Your task to perform on an android device: Find coffee shops on Maps Image 0: 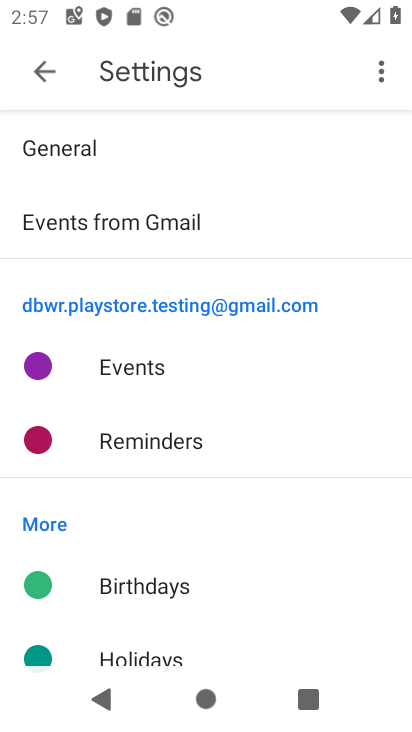
Step 0: press home button
Your task to perform on an android device: Find coffee shops on Maps Image 1: 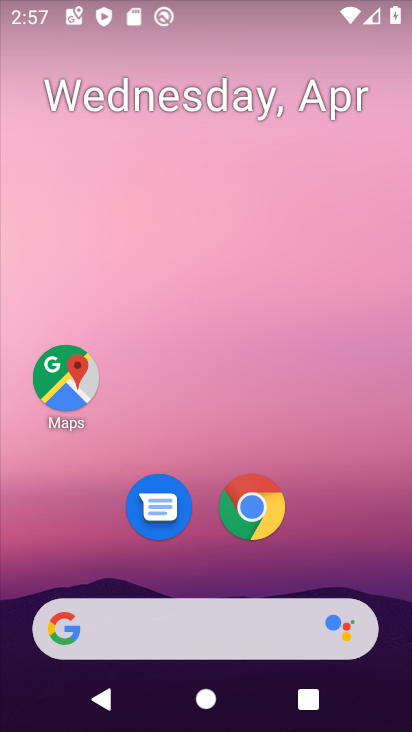
Step 1: click (70, 364)
Your task to perform on an android device: Find coffee shops on Maps Image 2: 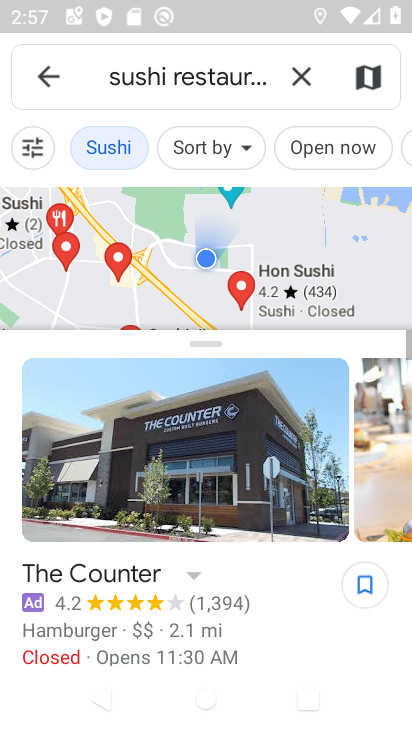
Step 2: click (300, 79)
Your task to perform on an android device: Find coffee shops on Maps Image 3: 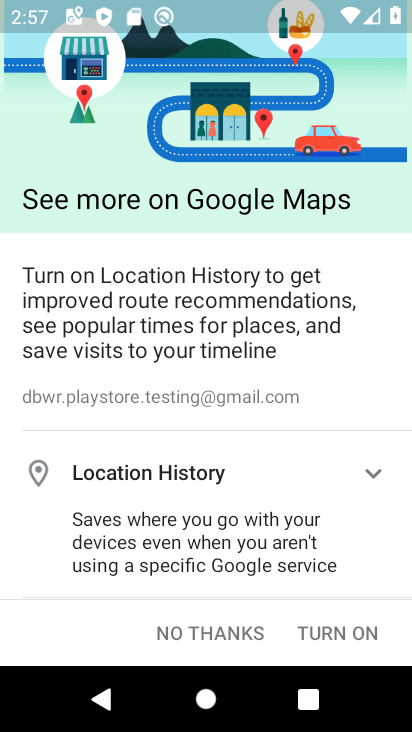
Step 3: click (206, 625)
Your task to perform on an android device: Find coffee shops on Maps Image 4: 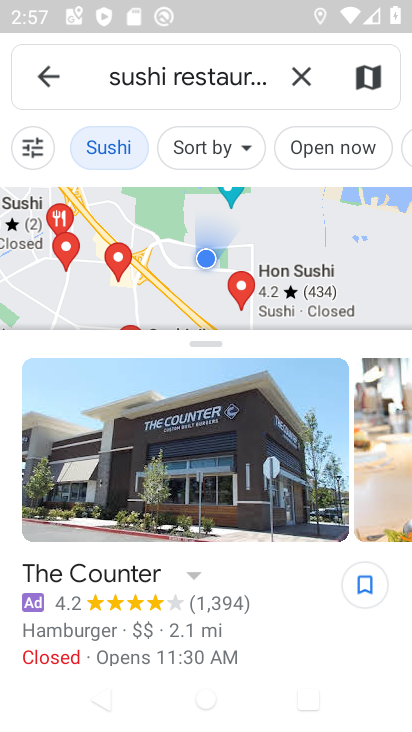
Step 4: click (301, 73)
Your task to perform on an android device: Find coffee shops on Maps Image 5: 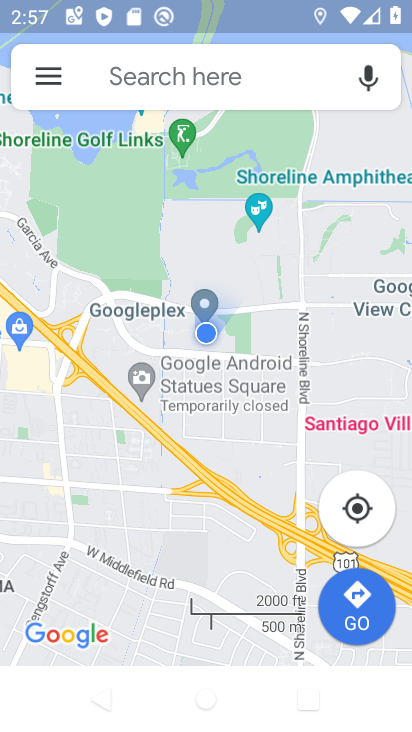
Step 5: click (281, 73)
Your task to perform on an android device: Find coffee shops on Maps Image 6: 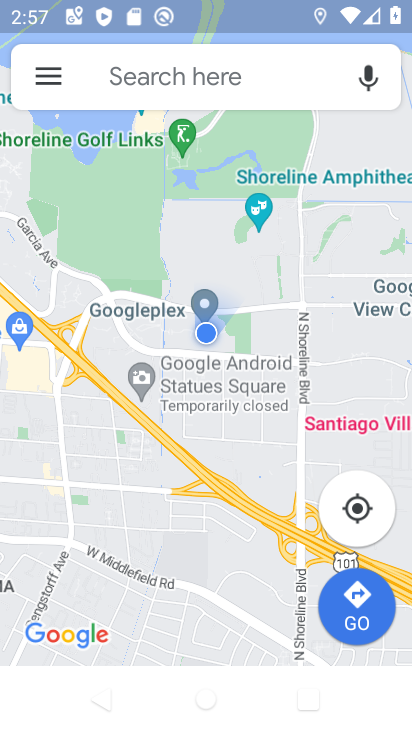
Step 6: click (281, 73)
Your task to perform on an android device: Find coffee shops on Maps Image 7: 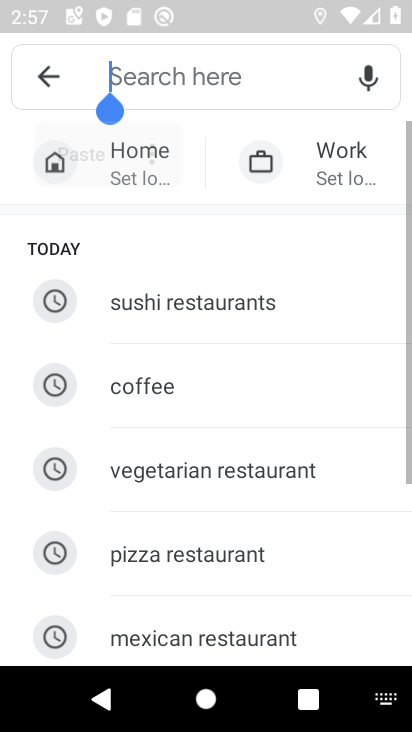
Step 7: click (281, 73)
Your task to perform on an android device: Find coffee shops on Maps Image 8: 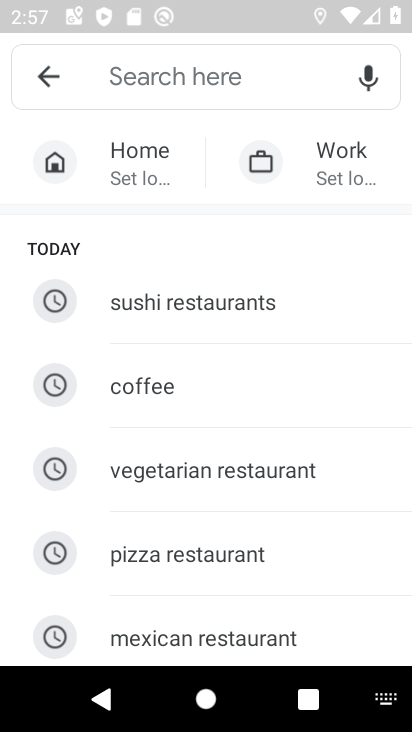
Step 8: type " coffee shops"
Your task to perform on an android device: Find coffee shops on Maps Image 9: 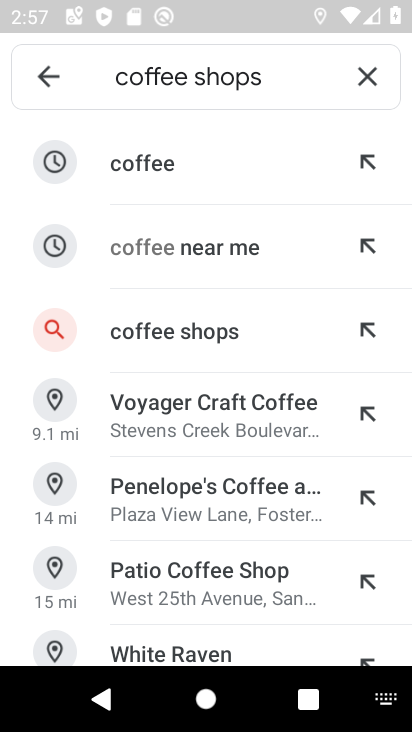
Step 9: click (208, 341)
Your task to perform on an android device: Find coffee shops on Maps Image 10: 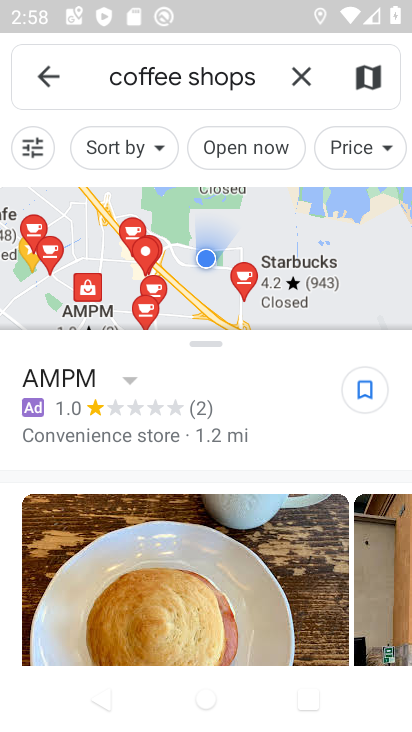
Step 10: task complete